Your task to perform on an android device: set an alarm Image 0: 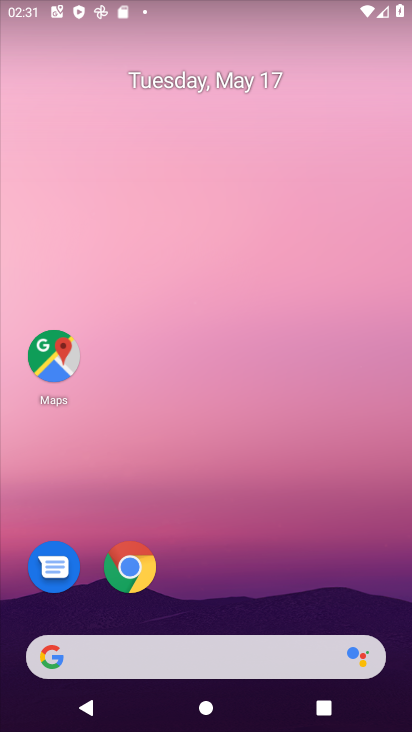
Step 0: drag from (385, 611) to (332, 233)
Your task to perform on an android device: set an alarm Image 1: 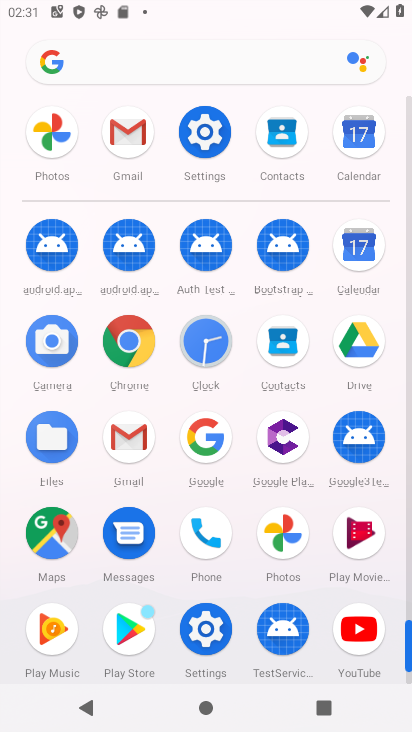
Step 1: click (210, 341)
Your task to perform on an android device: set an alarm Image 2: 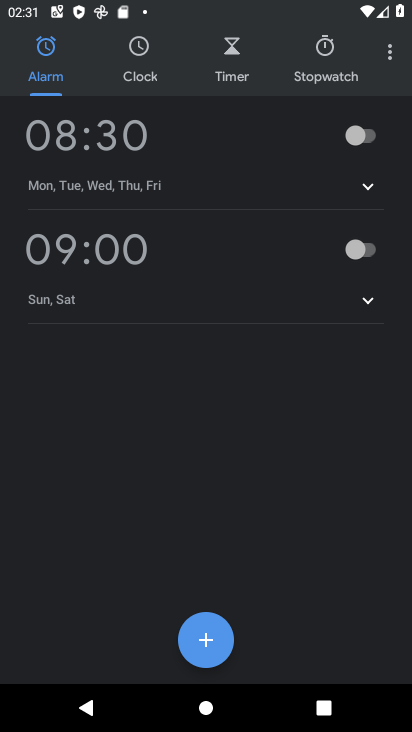
Step 2: click (55, 257)
Your task to perform on an android device: set an alarm Image 3: 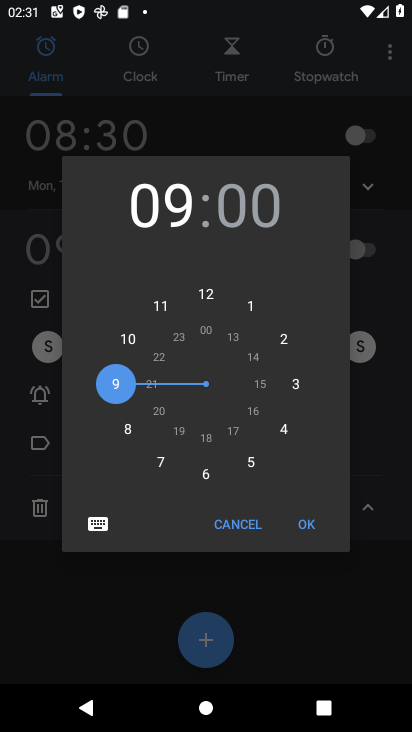
Step 3: click (208, 472)
Your task to perform on an android device: set an alarm Image 4: 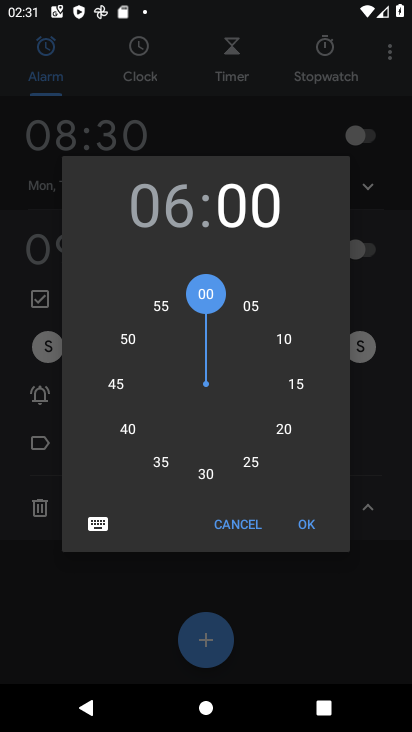
Step 4: click (308, 525)
Your task to perform on an android device: set an alarm Image 5: 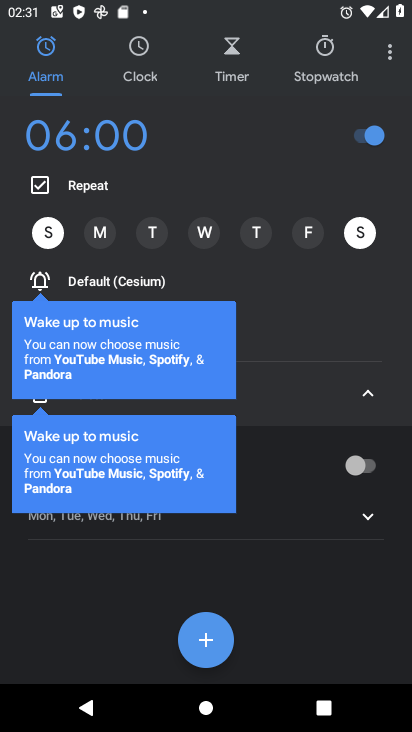
Step 5: click (96, 233)
Your task to perform on an android device: set an alarm Image 6: 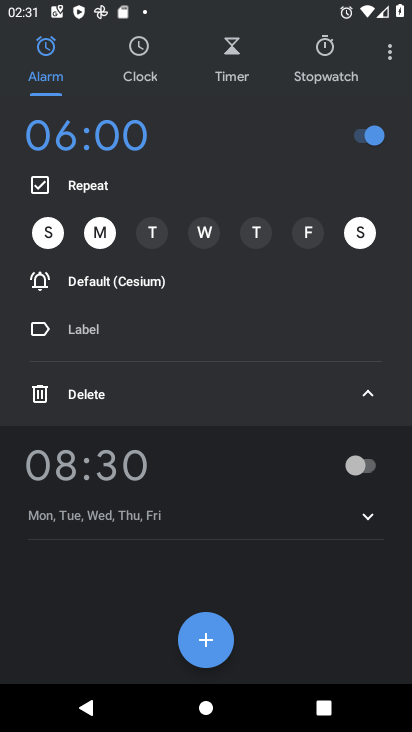
Step 6: click (153, 235)
Your task to perform on an android device: set an alarm Image 7: 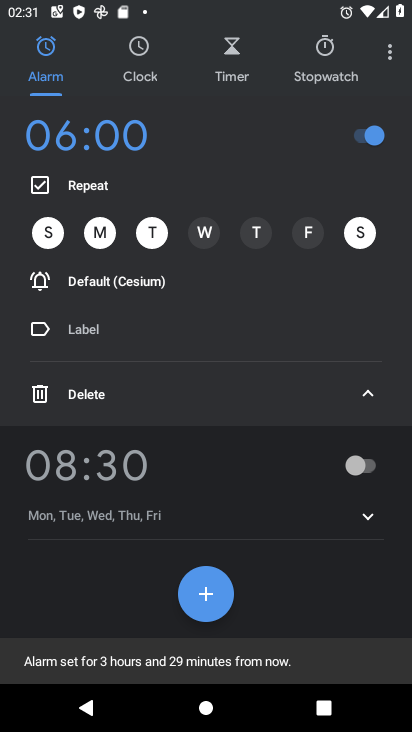
Step 7: click (209, 242)
Your task to perform on an android device: set an alarm Image 8: 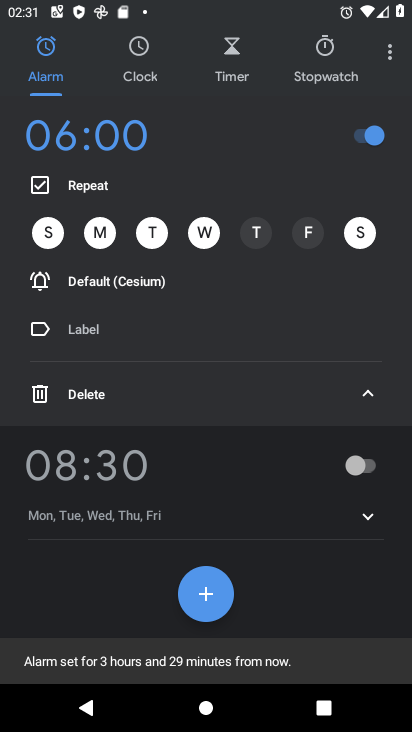
Step 8: click (257, 234)
Your task to perform on an android device: set an alarm Image 9: 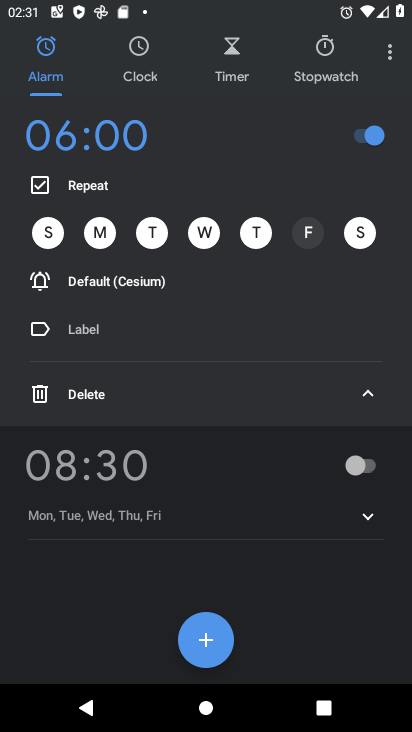
Step 9: click (311, 235)
Your task to perform on an android device: set an alarm Image 10: 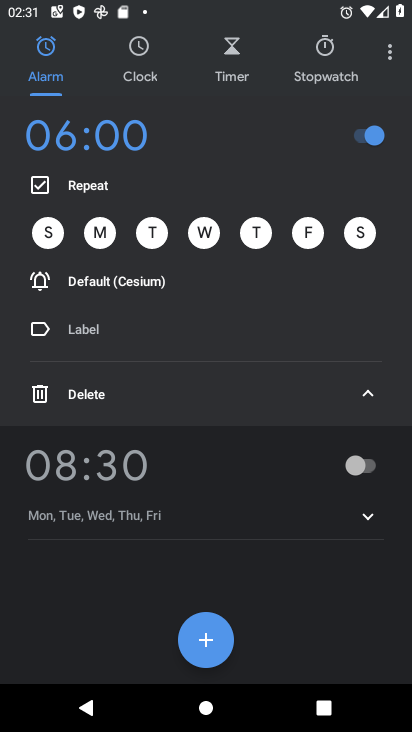
Step 10: click (53, 235)
Your task to perform on an android device: set an alarm Image 11: 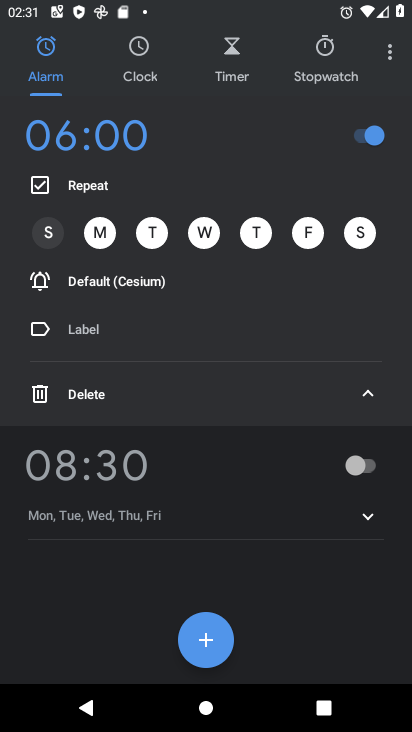
Step 11: click (365, 391)
Your task to perform on an android device: set an alarm Image 12: 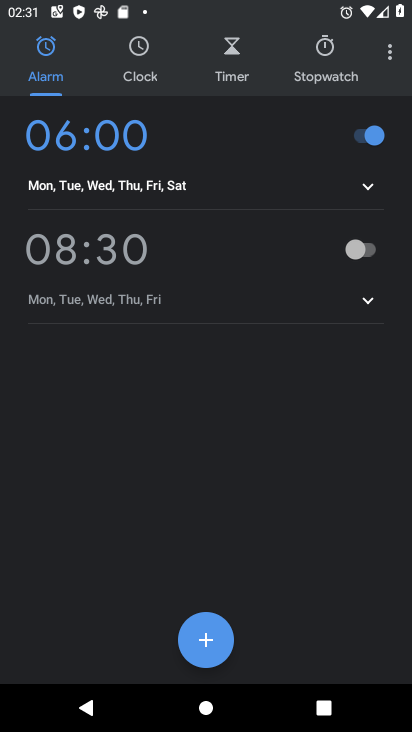
Step 12: task complete